Your task to perform on an android device: change keyboard looks Image 0: 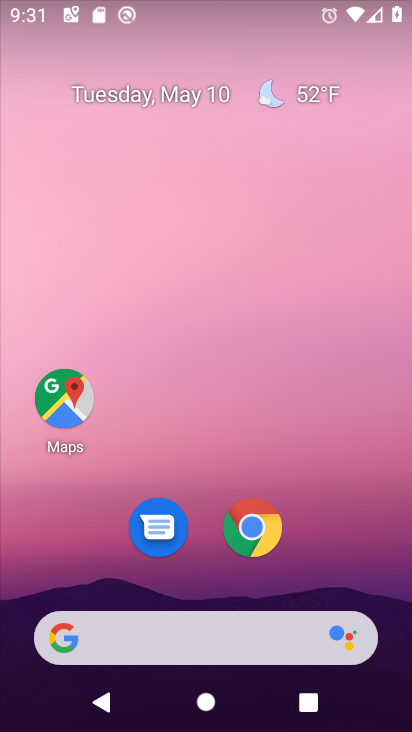
Step 0: drag from (320, 490) to (124, 137)
Your task to perform on an android device: change keyboard looks Image 1: 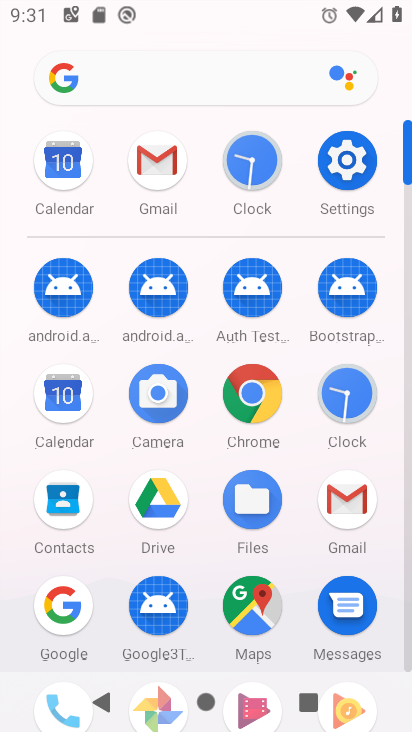
Step 1: click (359, 178)
Your task to perform on an android device: change keyboard looks Image 2: 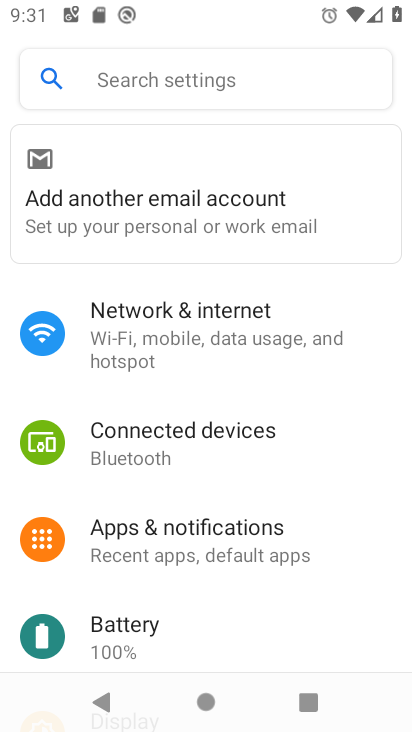
Step 2: drag from (206, 599) to (189, 93)
Your task to perform on an android device: change keyboard looks Image 3: 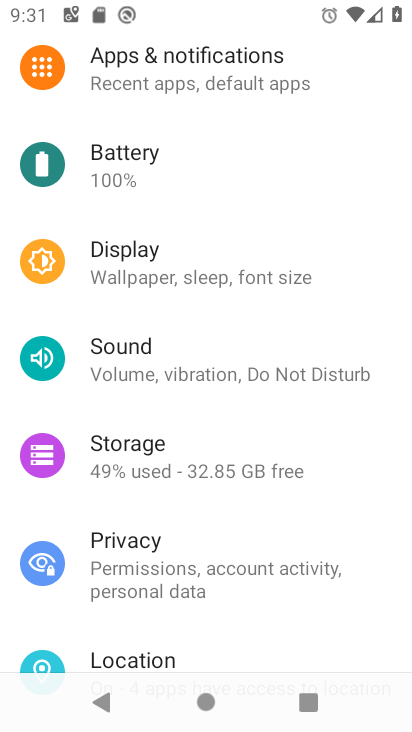
Step 3: drag from (187, 616) to (206, 87)
Your task to perform on an android device: change keyboard looks Image 4: 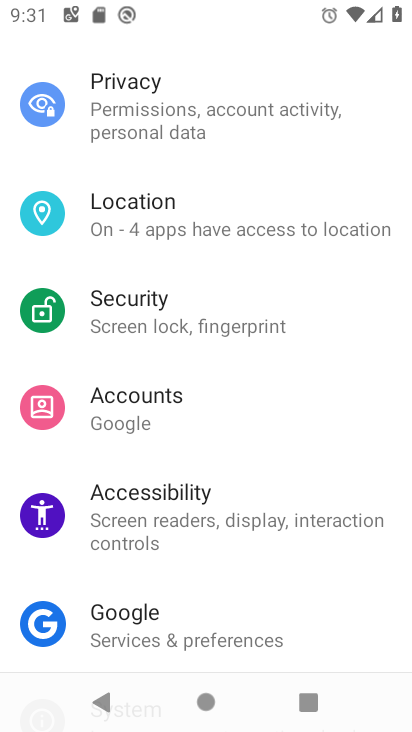
Step 4: drag from (173, 572) to (218, 144)
Your task to perform on an android device: change keyboard looks Image 5: 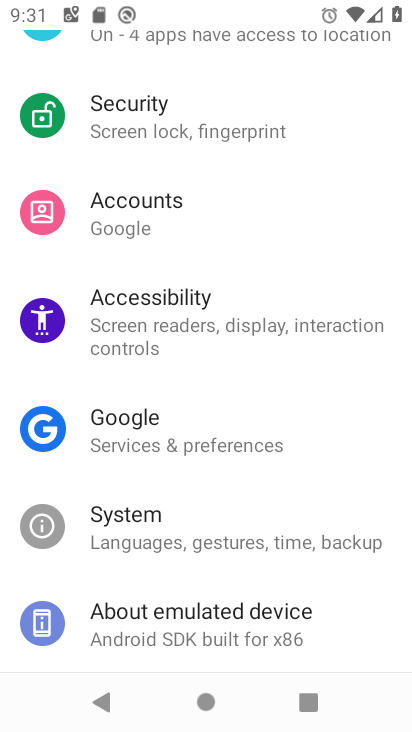
Step 5: click (192, 532)
Your task to perform on an android device: change keyboard looks Image 6: 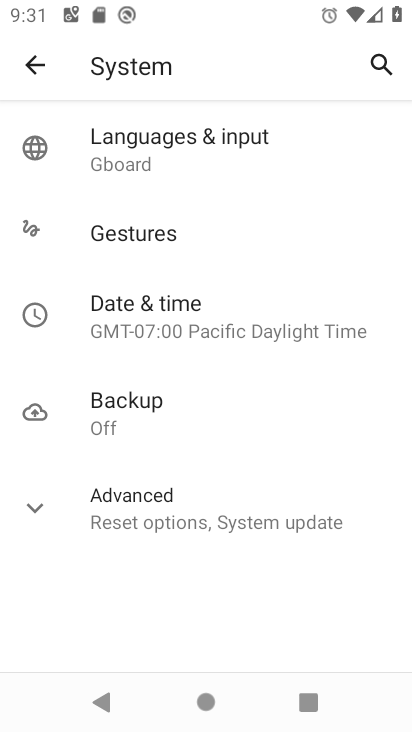
Step 6: click (100, 142)
Your task to perform on an android device: change keyboard looks Image 7: 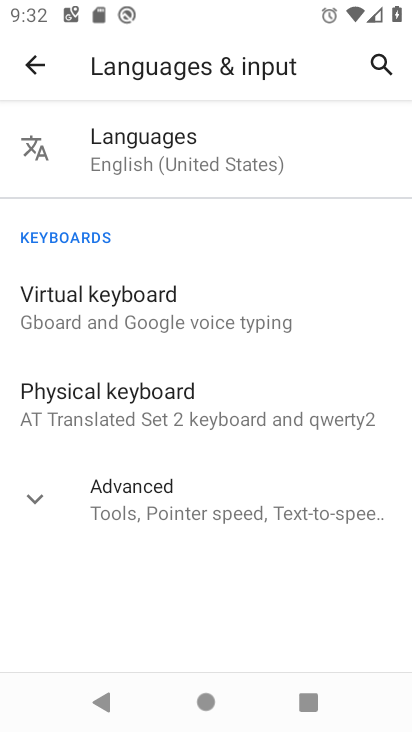
Step 7: click (154, 309)
Your task to perform on an android device: change keyboard looks Image 8: 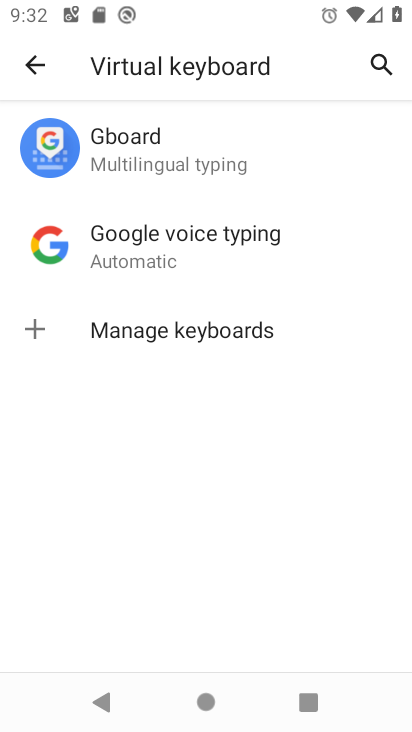
Step 8: click (146, 150)
Your task to perform on an android device: change keyboard looks Image 9: 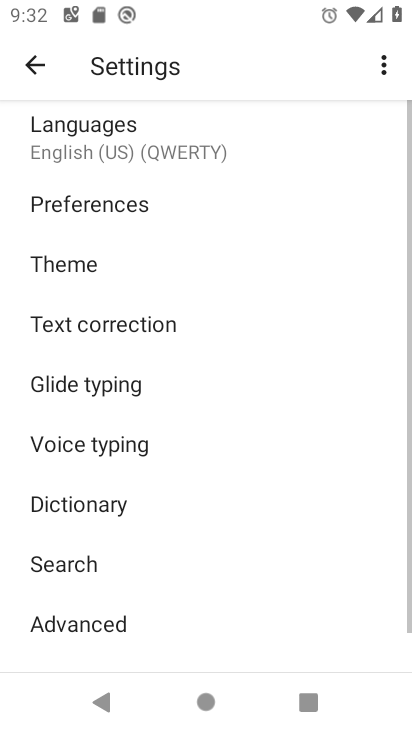
Step 9: click (67, 263)
Your task to perform on an android device: change keyboard looks Image 10: 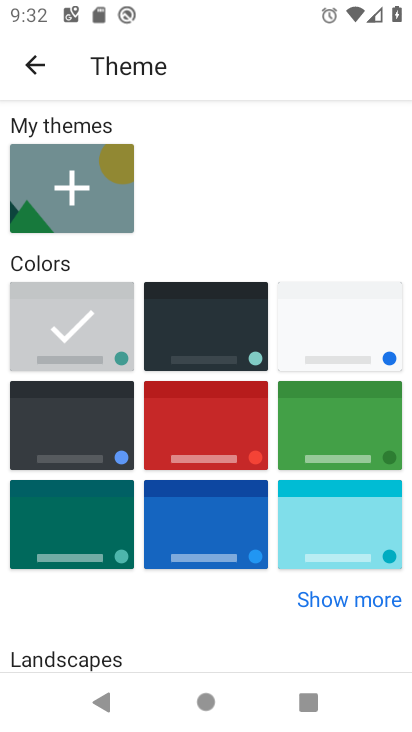
Step 10: drag from (235, 565) to (220, 167)
Your task to perform on an android device: change keyboard looks Image 11: 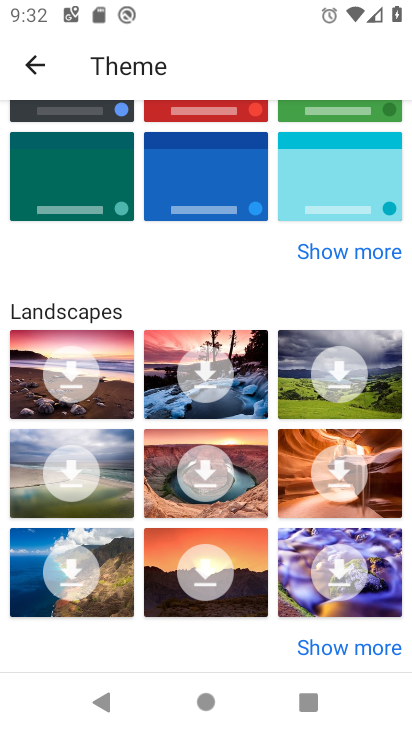
Step 11: click (334, 573)
Your task to perform on an android device: change keyboard looks Image 12: 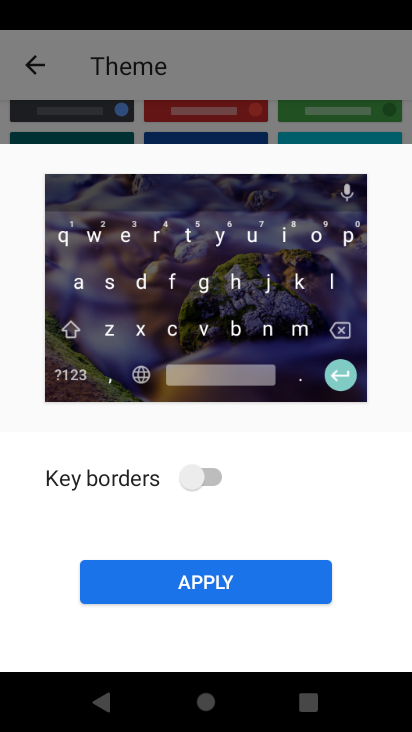
Step 12: click (183, 580)
Your task to perform on an android device: change keyboard looks Image 13: 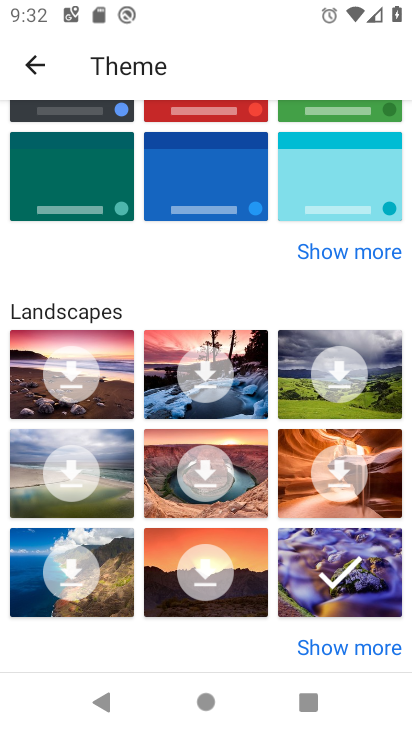
Step 13: task complete